Your task to perform on an android device: Find coffee shops on Maps Image 0: 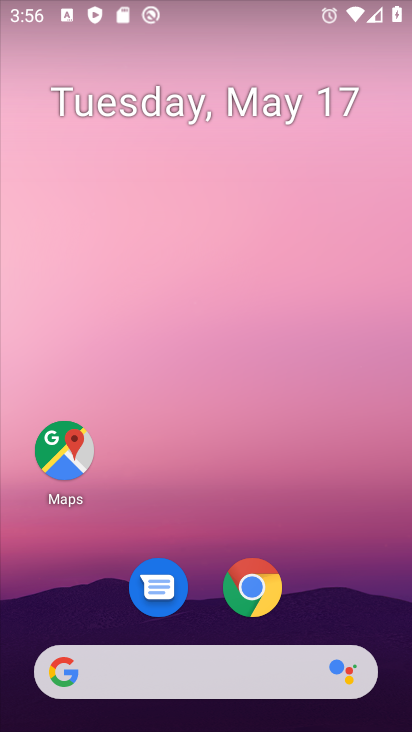
Step 0: drag from (208, 610) to (276, 112)
Your task to perform on an android device: Find coffee shops on Maps Image 1: 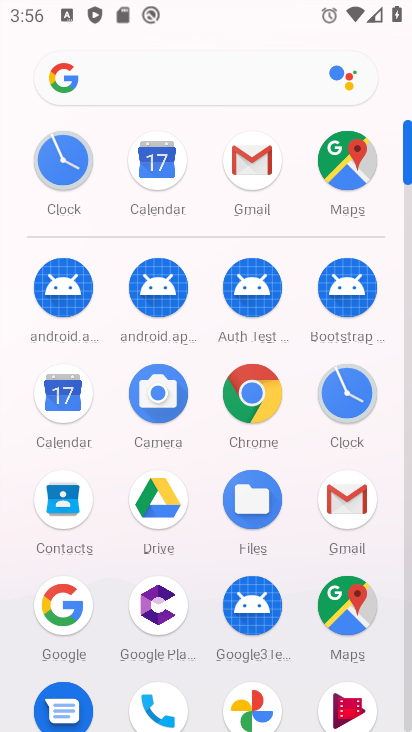
Step 1: click (334, 156)
Your task to perform on an android device: Find coffee shops on Maps Image 2: 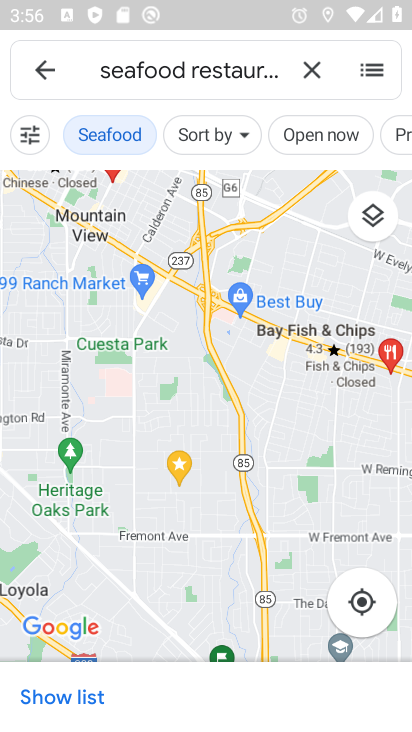
Step 2: click (307, 78)
Your task to perform on an android device: Find coffee shops on Maps Image 3: 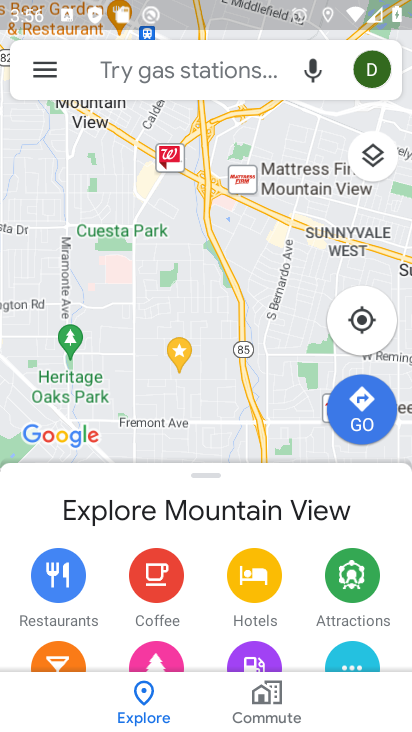
Step 3: click (206, 61)
Your task to perform on an android device: Find coffee shops on Maps Image 4: 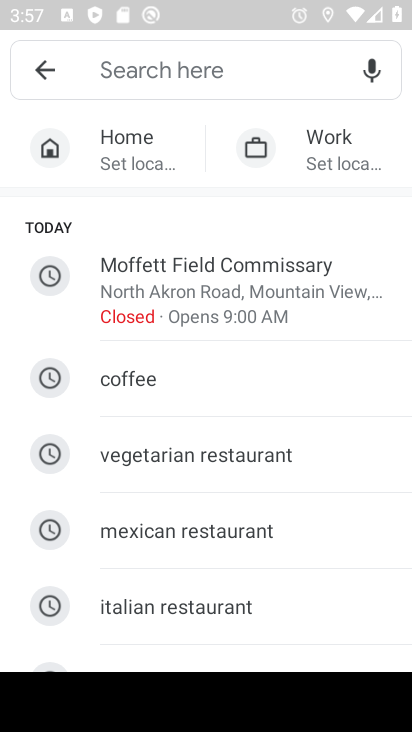
Step 4: click (172, 394)
Your task to perform on an android device: Find coffee shops on Maps Image 5: 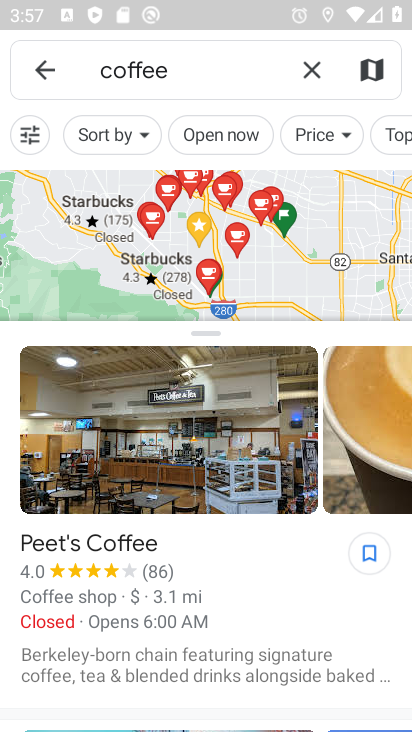
Step 5: task complete